Your task to perform on an android device: What's on my calendar today? Image 0: 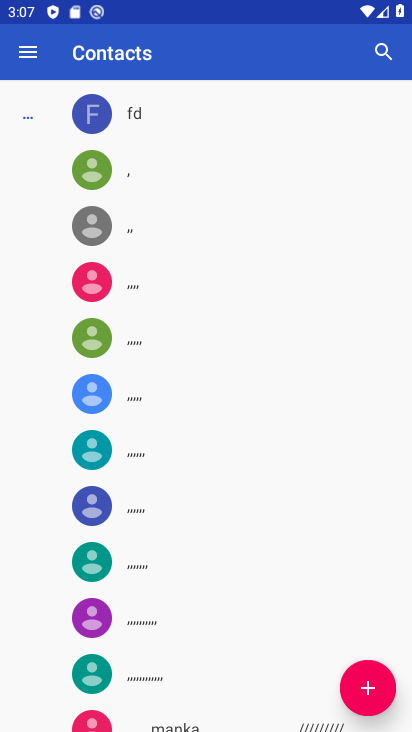
Step 0: press back button
Your task to perform on an android device: What's on my calendar today? Image 1: 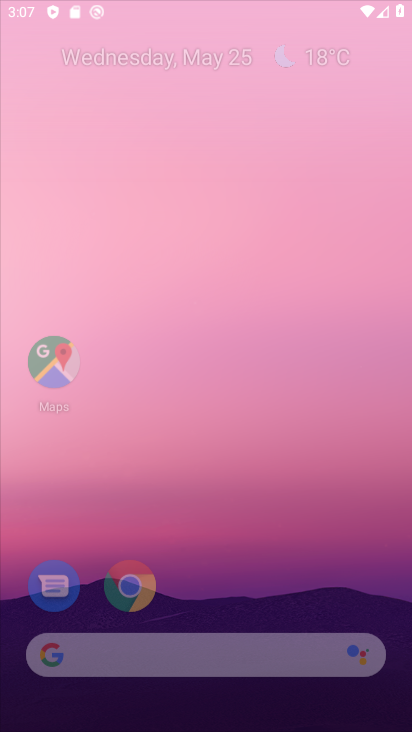
Step 1: click (247, 225)
Your task to perform on an android device: What's on my calendar today? Image 2: 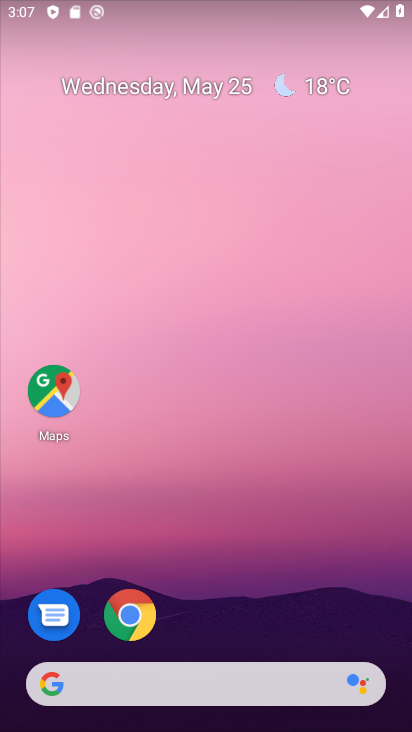
Step 2: drag from (234, 571) to (121, 251)
Your task to perform on an android device: What's on my calendar today? Image 3: 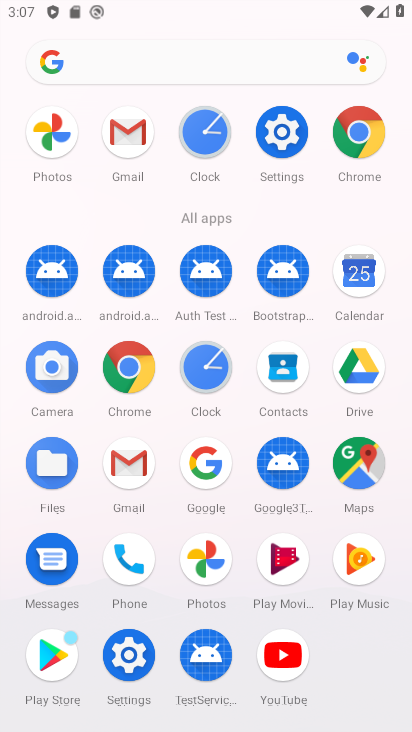
Step 3: click (355, 273)
Your task to perform on an android device: What's on my calendar today? Image 4: 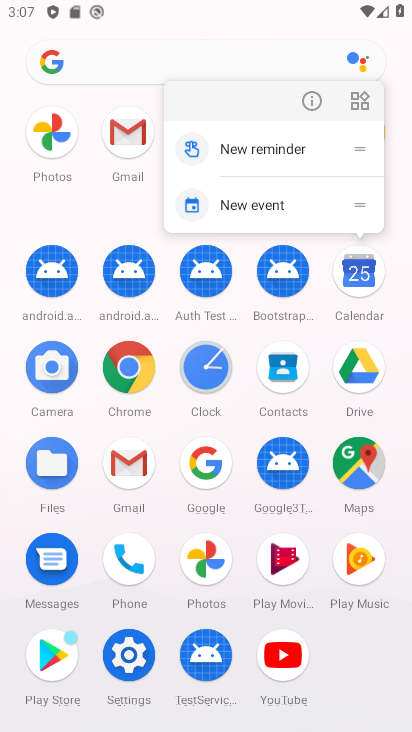
Step 4: click (350, 269)
Your task to perform on an android device: What's on my calendar today? Image 5: 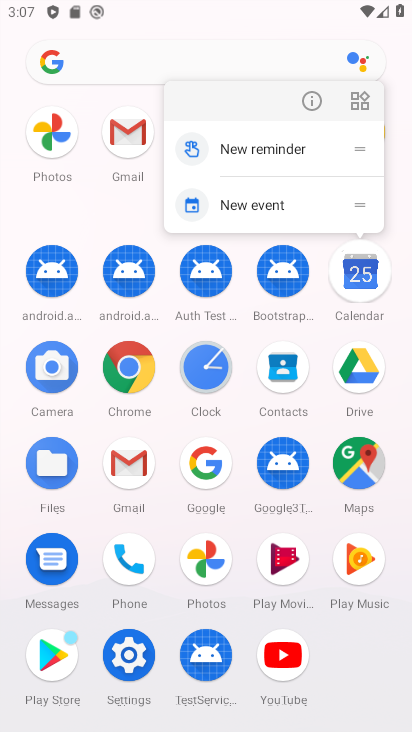
Step 5: click (349, 267)
Your task to perform on an android device: What's on my calendar today? Image 6: 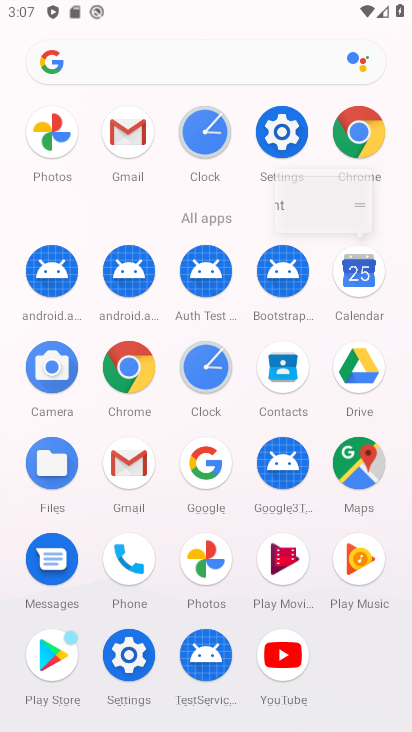
Step 6: click (347, 263)
Your task to perform on an android device: What's on my calendar today? Image 7: 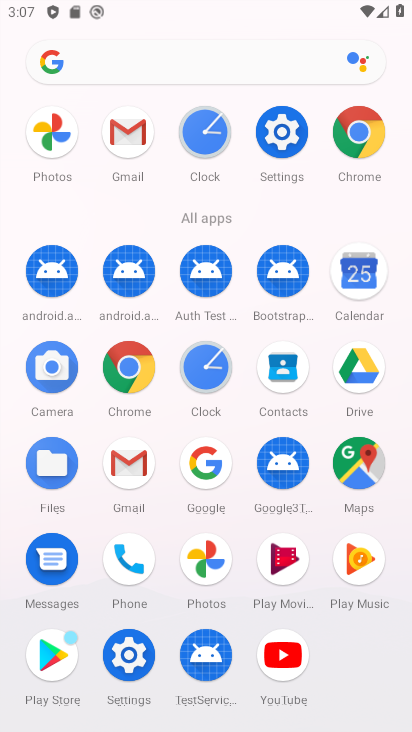
Step 7: click (347, 263)
Your task to perform on an android device: What's on my calendar today? Image 8: 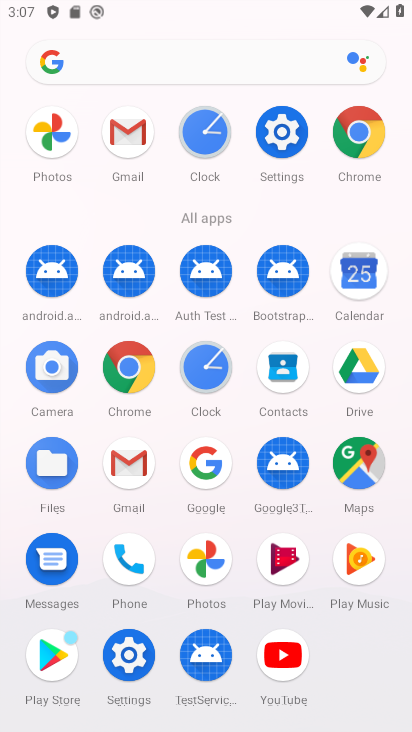
Step 8: click (352, 263)
Your task to perform on an android device: What's on my calendar today? Image 9: 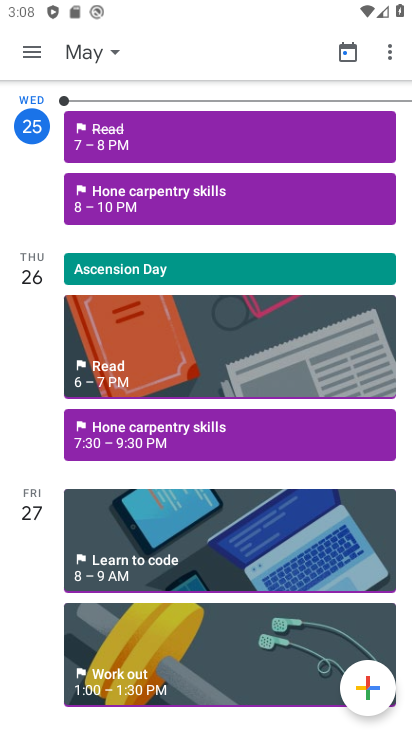
Step 9: click (98, 141)
Your task to perform on an android device: What's on my calendar today? Image 10: 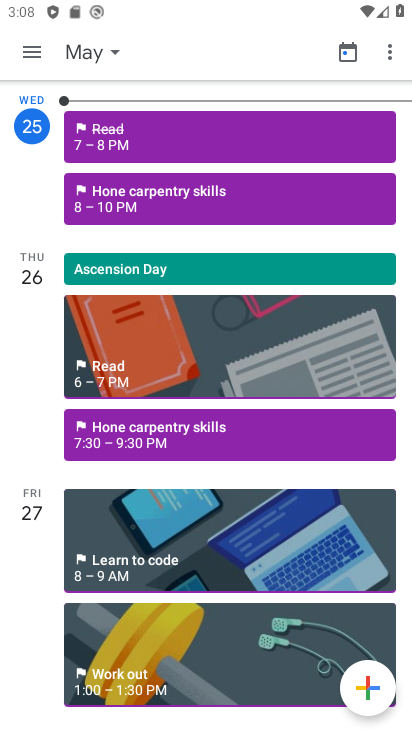
Step 10: task complete